Your task to perform on an android device: check android version Image 0: 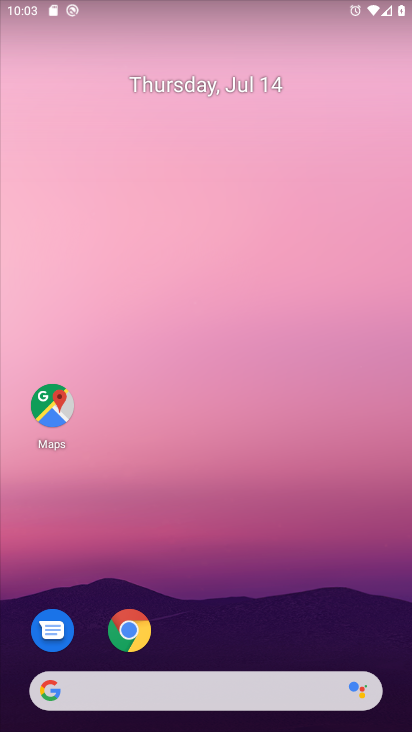
Step 0: click (287, 247)
Your task to perform on an android device: check android version Image 1: 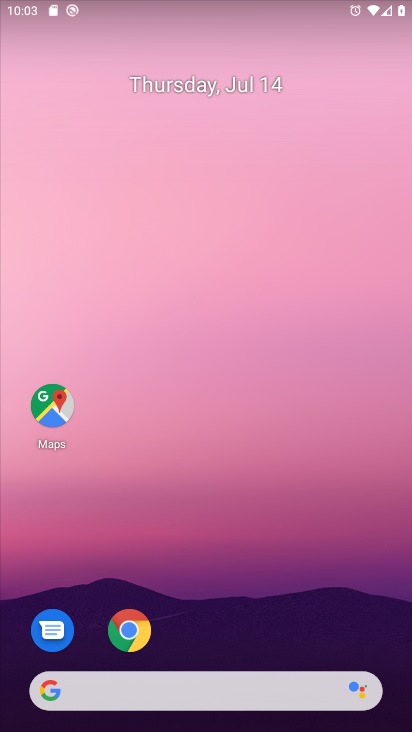
Step 1: drag from (201, 593) to (272, 255)
Your task to perform on an android device: check android version Image 2: 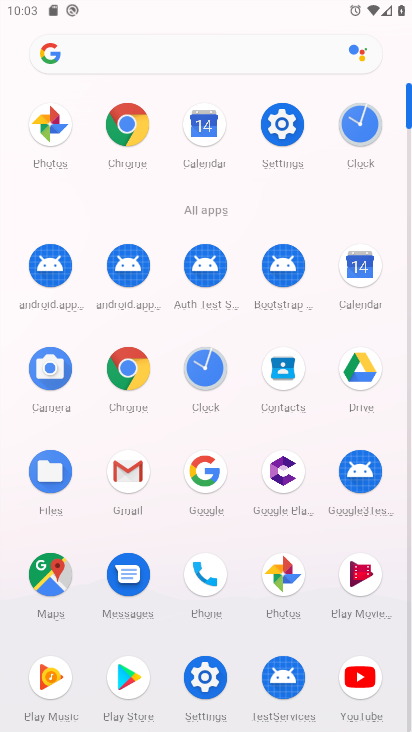
Step 2: click (279, 137)
Your task to perform on an android device: check android version Image 3: 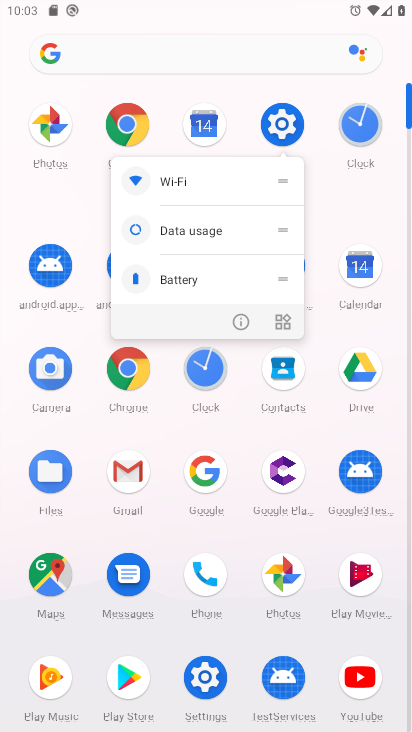
Step 3: click (239, 317)
Your task to perform on an android device: check android version Image 4: 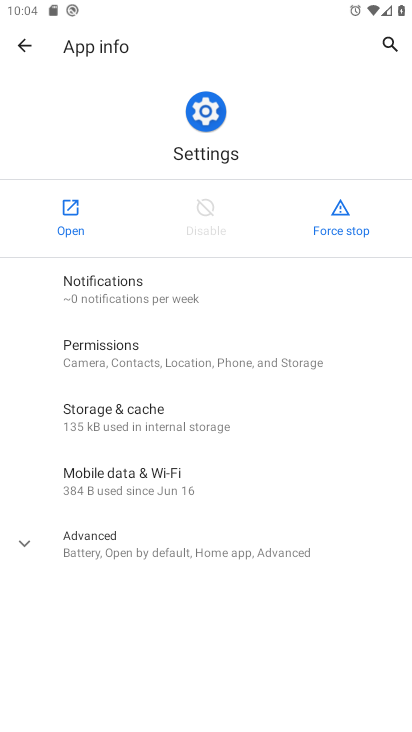
Step 4: click (25, 218)
Your task to perform on an android device: check android version Image 5: 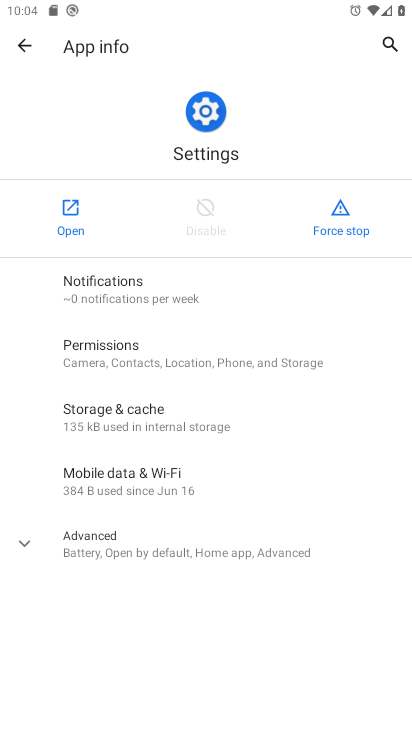
Step 5: click (61, 214)
Your task to perform on an android device: check android version Image 6: 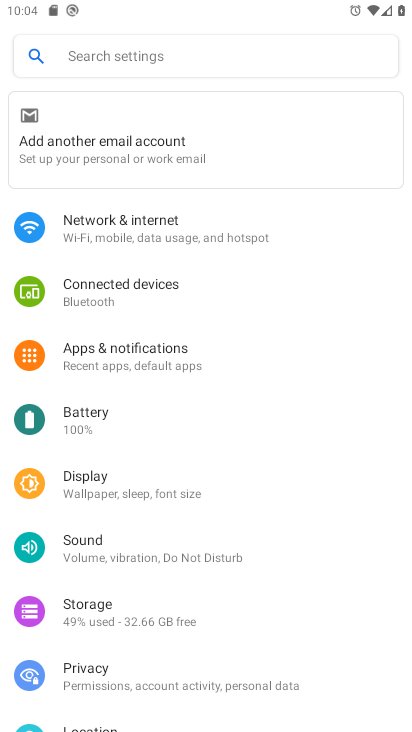
Step 6: drag from (97, 573) to (161, 351)
Your task to perform on an android device: check android version Image 7: 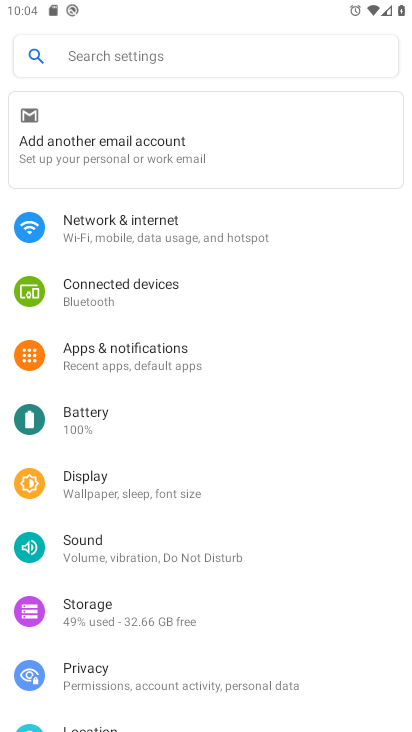
Step 7: drag from (143, 610) to (241, 224)
Your task to perform on an android device: check android version Image 8: 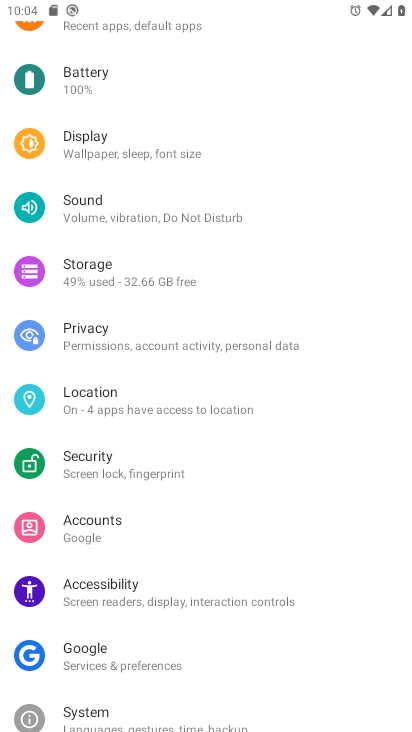
Step 8: drag from (131, 683) to (211, 324)
Your task to perform on an android device: check android version Image 9: 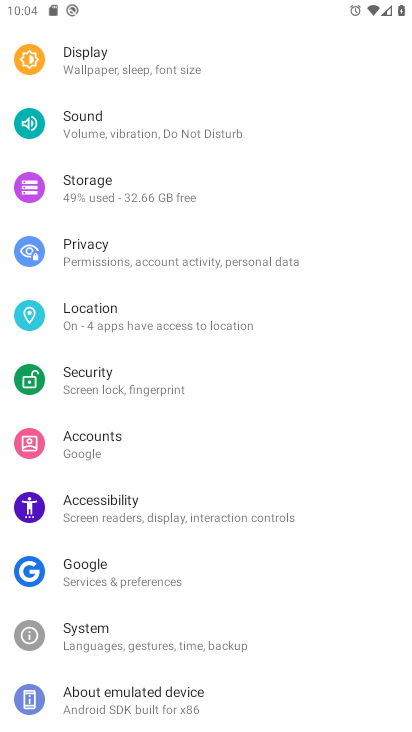
Step 9: click (136, 708)
Your task to perform on an android device: check android version Image 10: 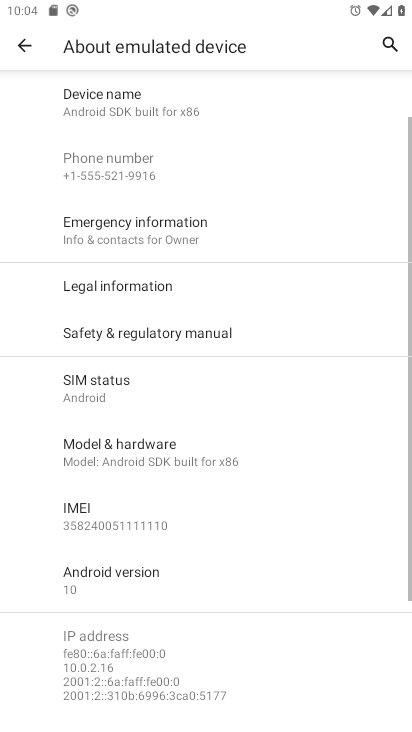
Step 10: drag from (130, 627) to (208, 390)
Your task to perform on an android device: check android version Image 11: 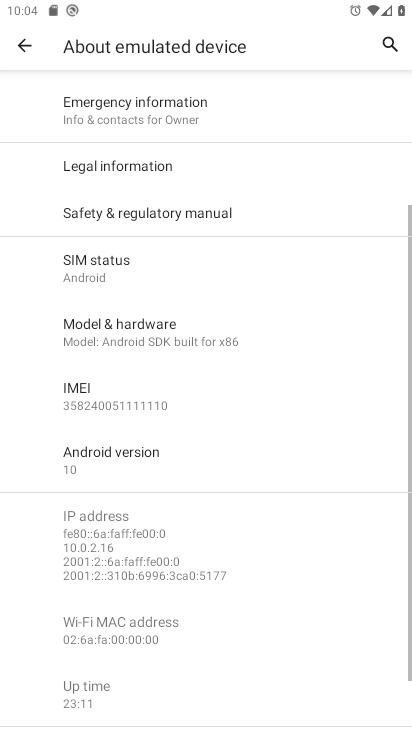
Step 11: click (180, 443)
Your task to perform on an android device: check android version Image 12: 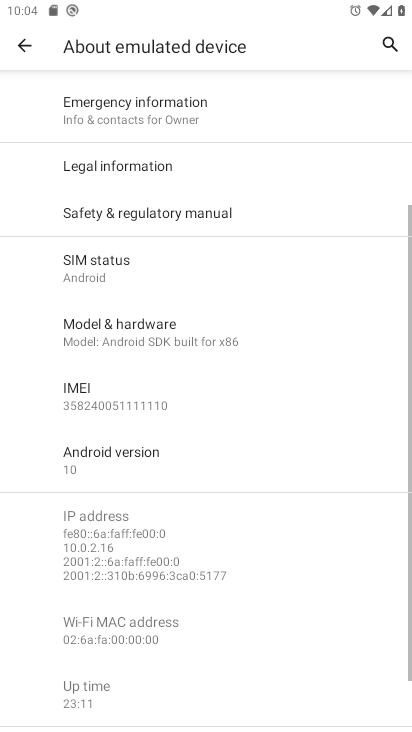
Step 12: click (180, 443)
Your task to perform on an android device: check android version Image 13: 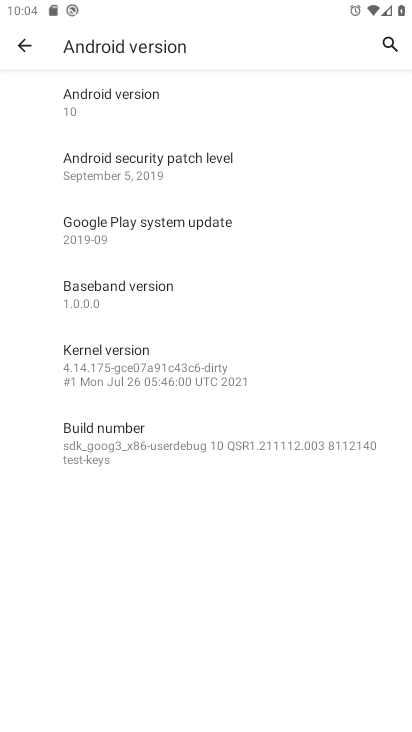
Step 13: task complete